Your task to perform on an android device: uninstall "AliExpress" Image 0: 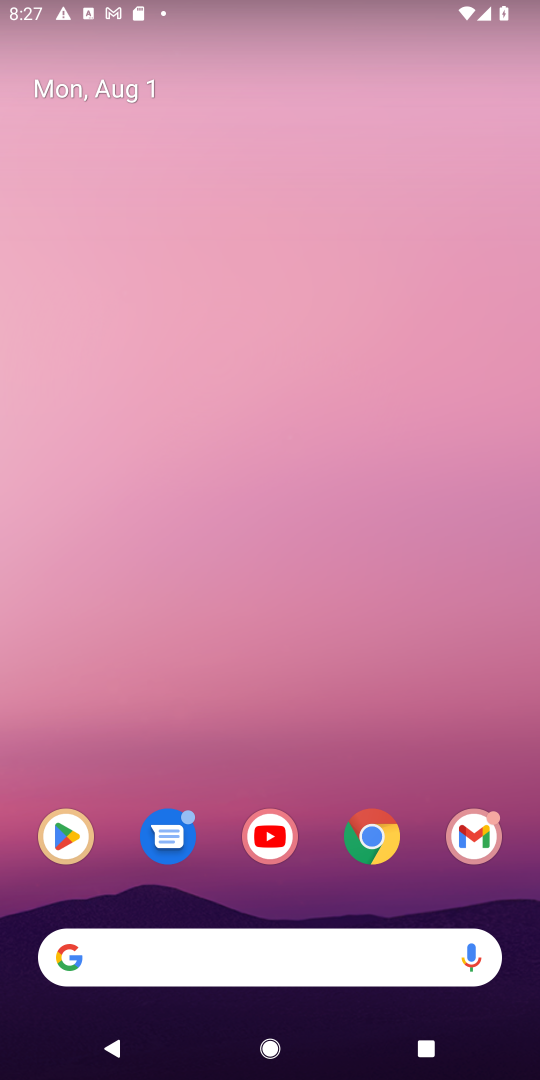
Step 0: click (69, 832)
Your task to perform on an android device: uninstall "AliExpress" Image 1: 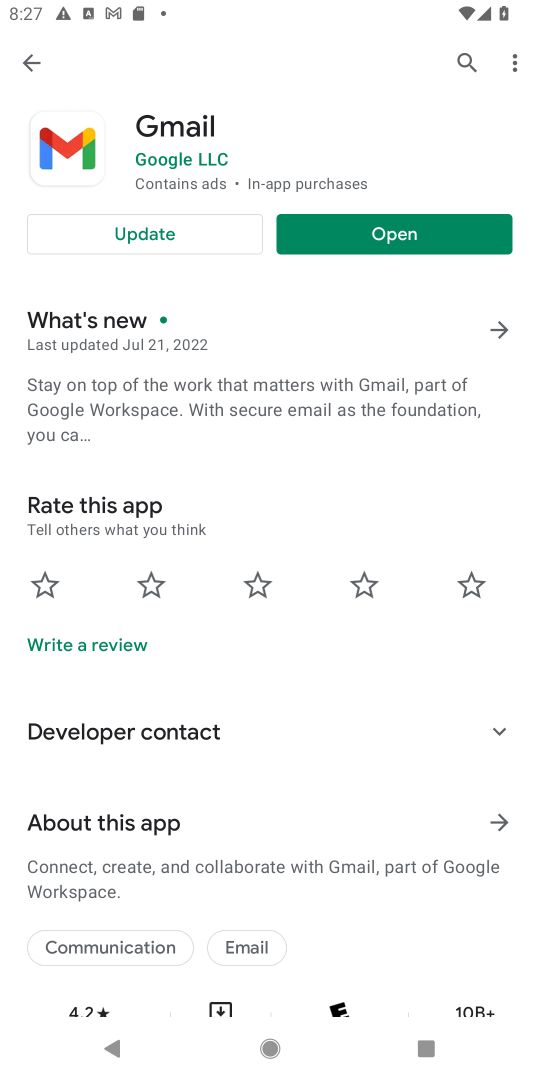
Step 1: click (470, 58)
Your task to perform on an android device: uninstall "AliExpress" Image 2: 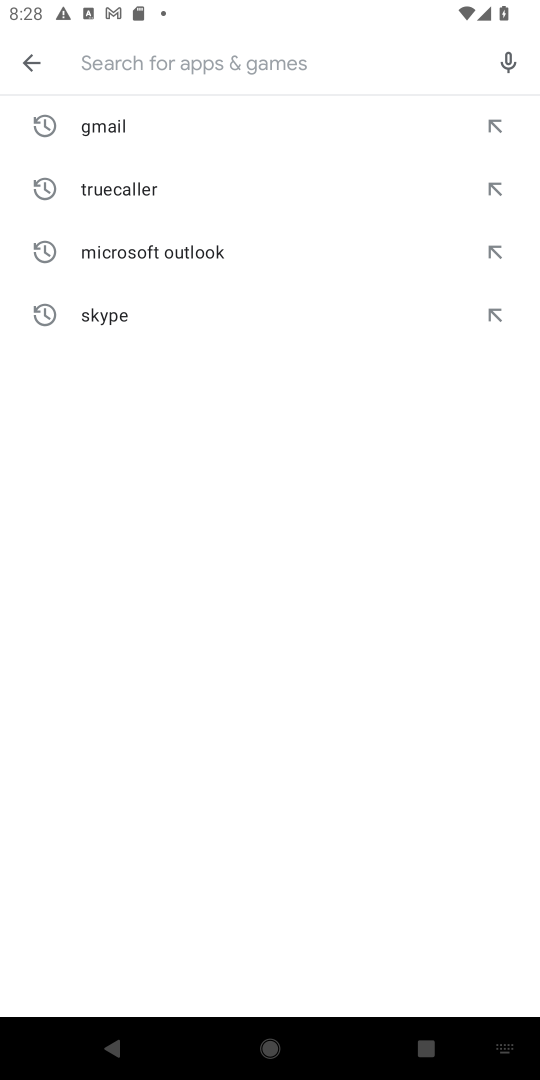
Step 2: type "AliExpress"
Your task to perform on an android device: uninstall "AliExpress" Image 3: 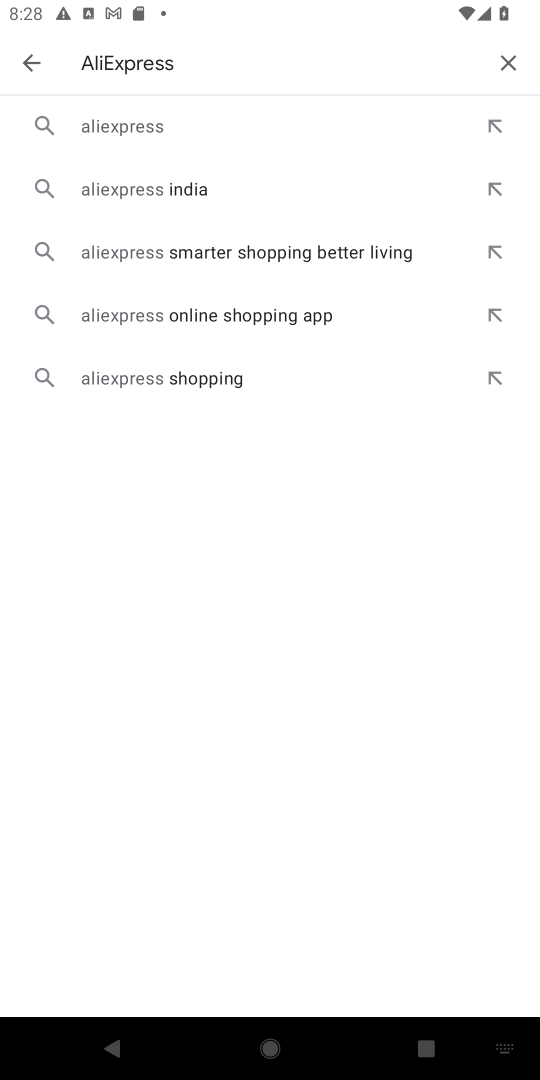
Step 3: click (107, 125)
Your task to perform on an android device: uninstall "AliExpress" Image 4: 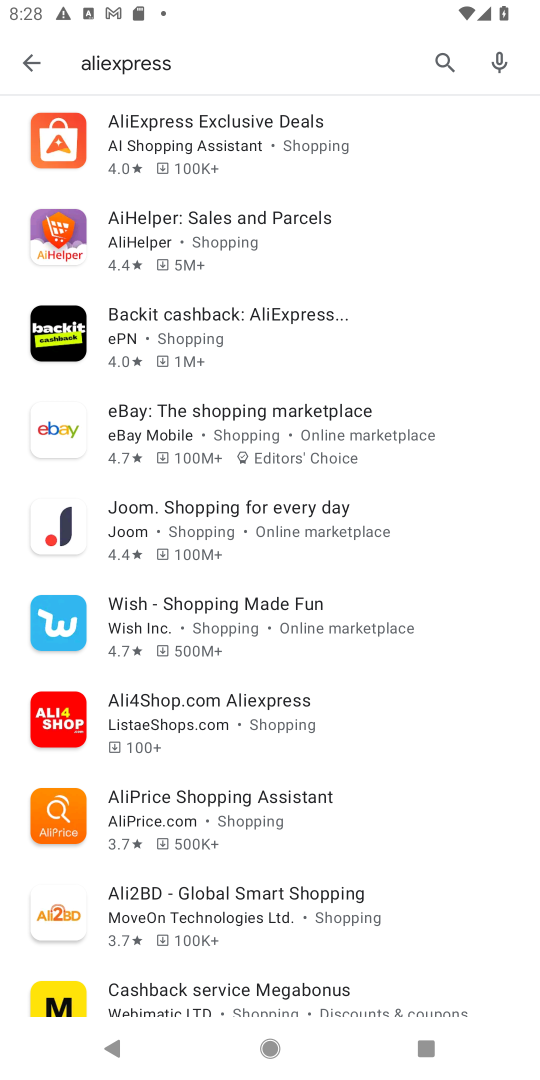
Step 4: click (203, 140)
Your task to perform on an android device: uninstall "AliExpress" Image 5: 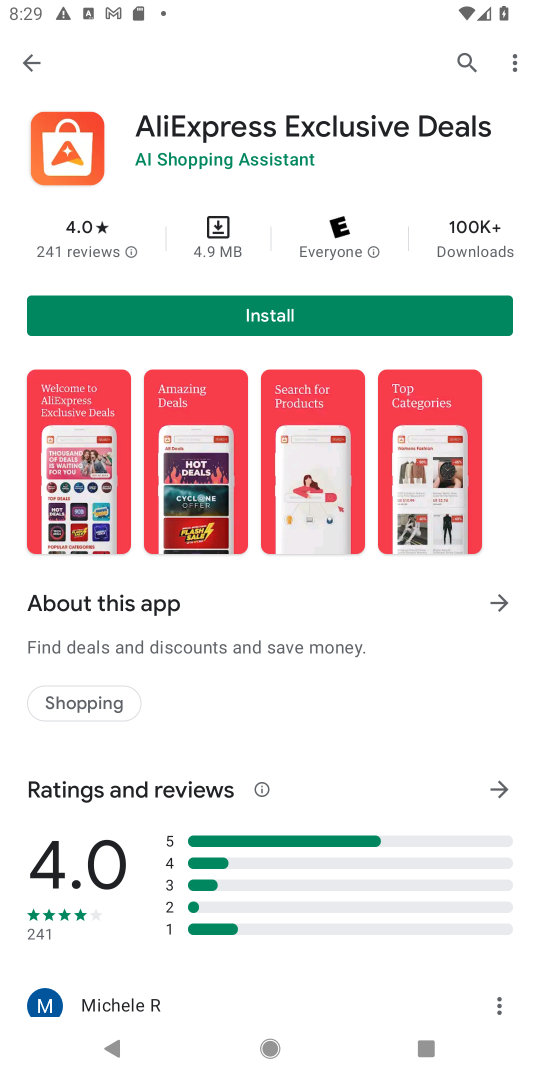
Step 5: task complete